Your task to perform on an android device: turn off wifi Image 0: 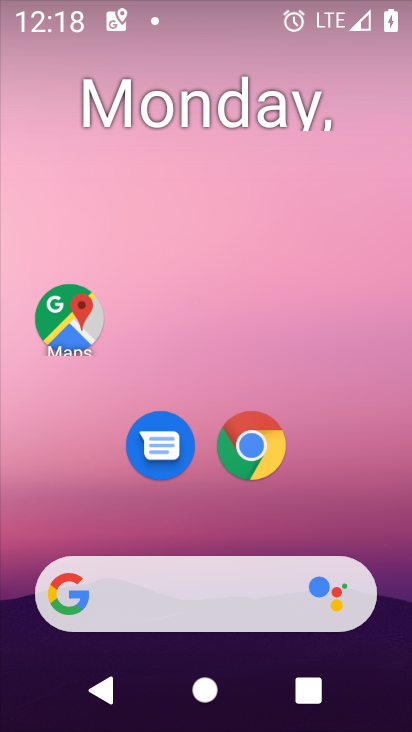
Step 0: drag from (196, 484) to (204, 60)
Your task to perform on an android device: turn off wifi Image 1: 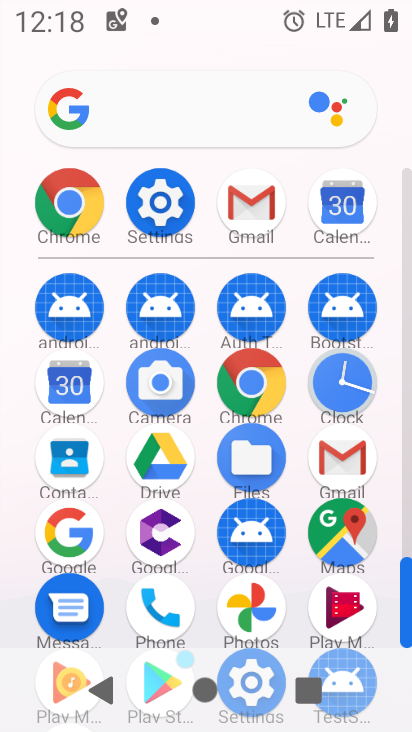
Step 1: click (150, 200)
Your task to perform on an android device: turn off wifi Image 2: 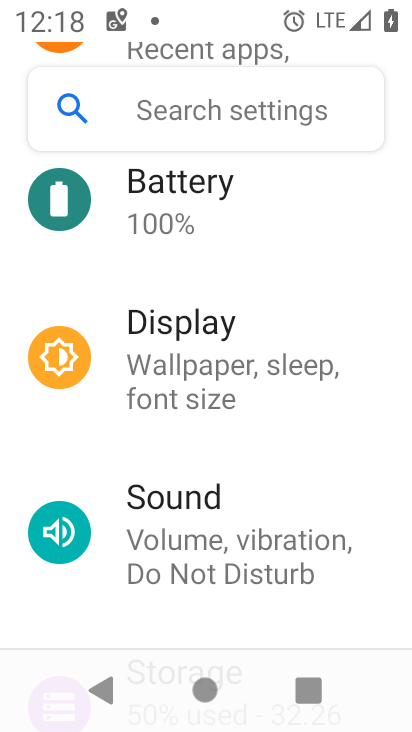
Step 2: drag from (240, 281) to (310, 724)
Your task to perform on an android device: turn off wifi Image 3: 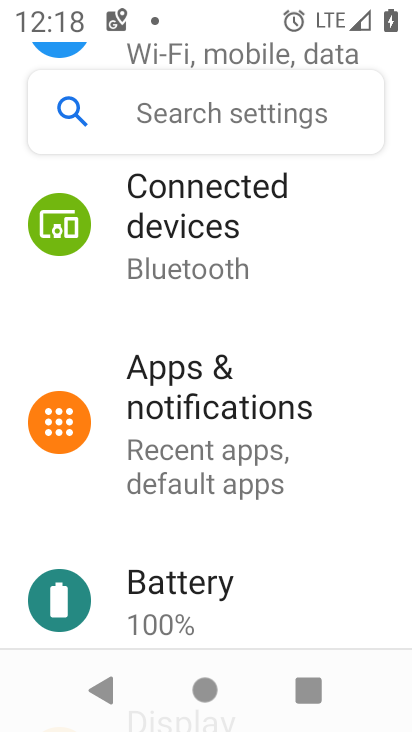
Step 3: drag from (254, 379) to (384, 729)
Your task to perform on an android device: turn off wifi Image 4: 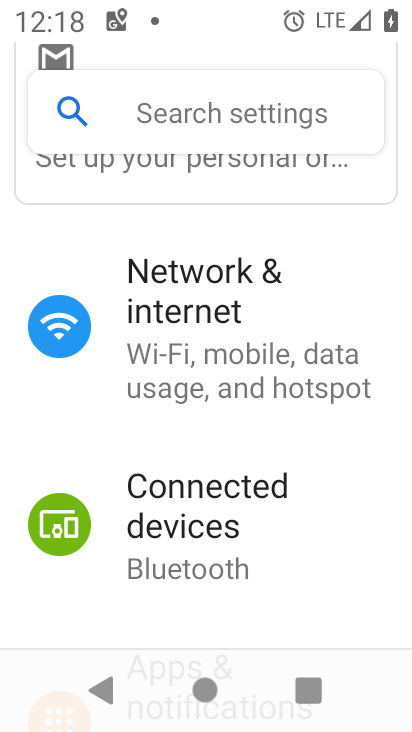
Step 4: click (220, 307)
Your task to perform on an android device: turn off wifi Image 5: 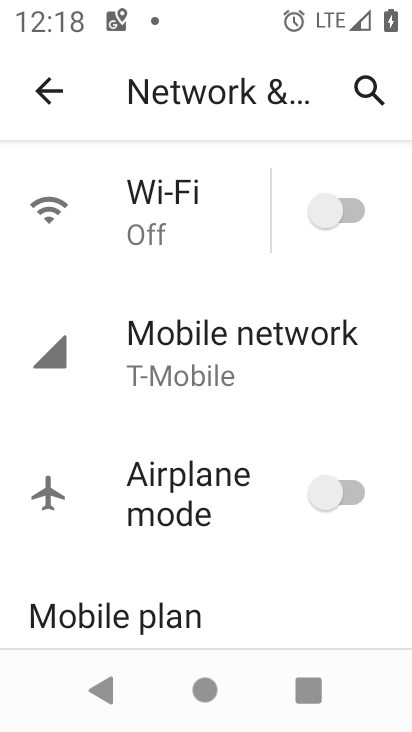
Step 5: click (223, 218)
Your task to perform on an android device: turn off wifi Image 6: 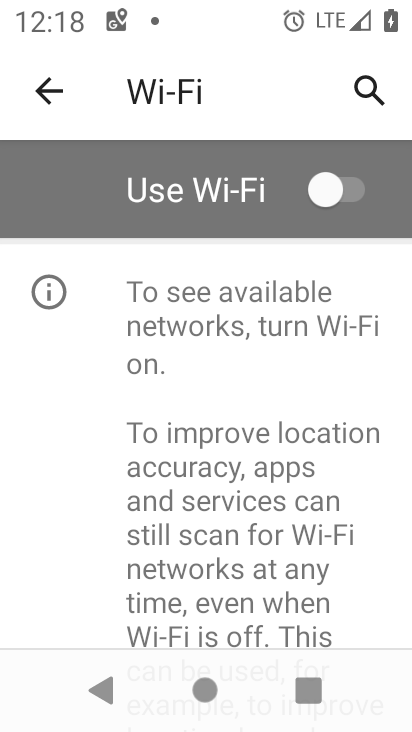
Step 6: task complete